Your task to perform on an android device: Open settings on Google Maps Image 0: 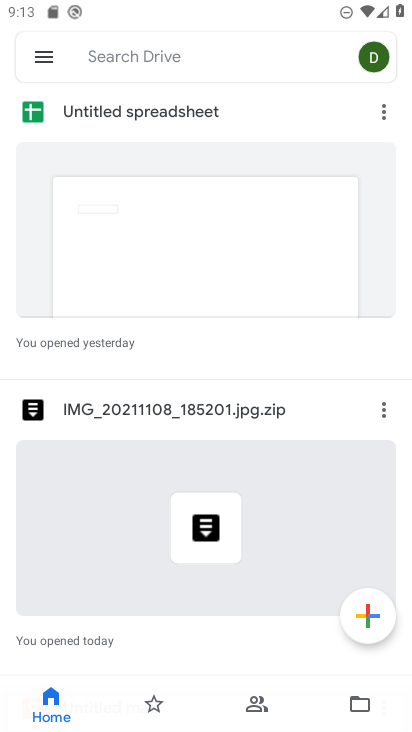
Step 0: press home button
Your task to perform on an android device: Open settings on Google Maps Image 1: 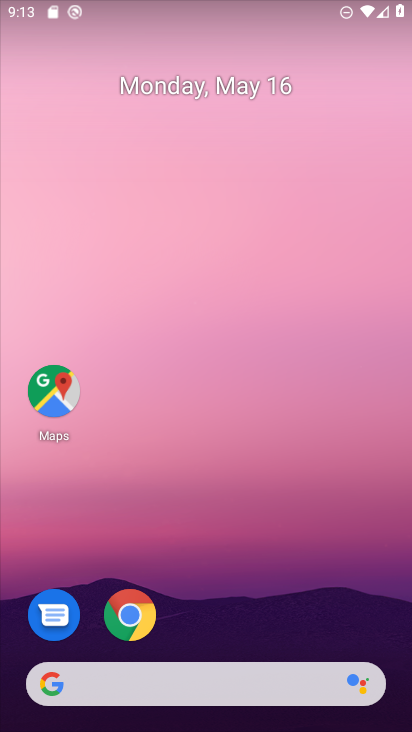
Step 1: click (63, 400)
Your task to perform on an android device: Open settings on Google Maps Image 2: 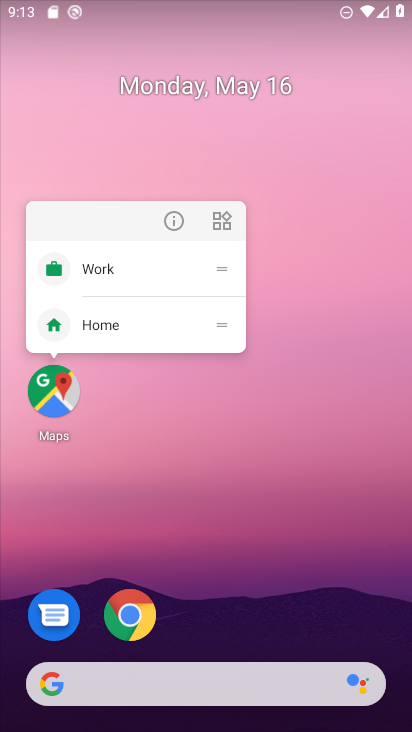
Step 2: click (47, 366)
Your task to perform on an android device: Open settings on Google Maps Image 3: 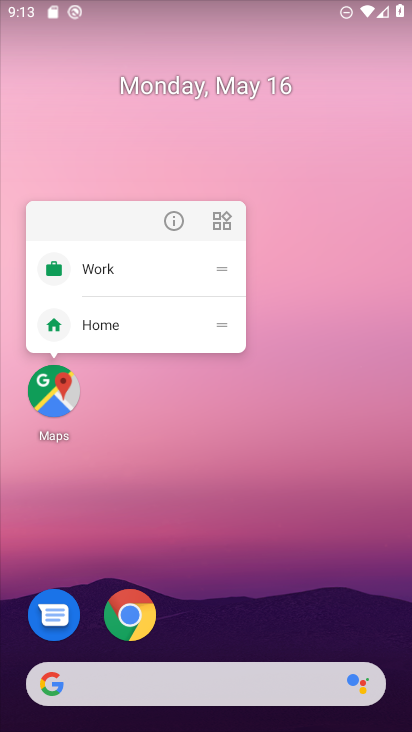
Step 3: click (46, 385)
Your task to perform on an android device: Open settings on Google Maps Image 4: 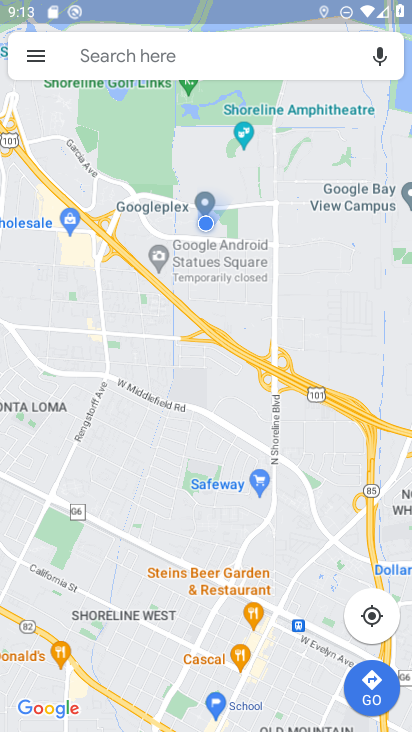
Step 4: click (43, 54)
Your task to perform on an android device: Open settings on Google Maps Image 5: 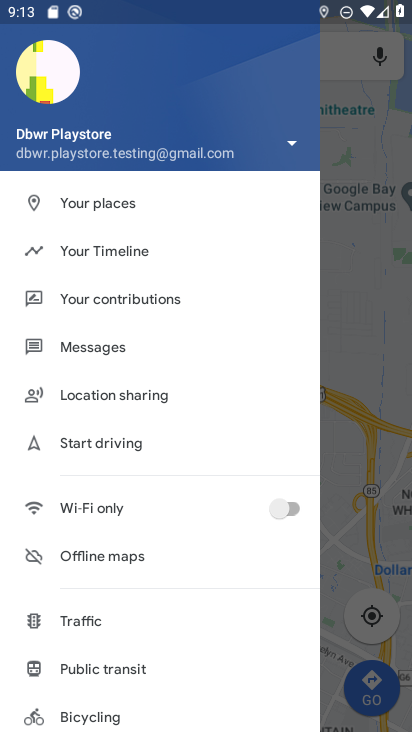
Step 5: drag from (98, 674) to (180, 172)
Your task to perform on an android device: Open settings on Google Maps Image 6: 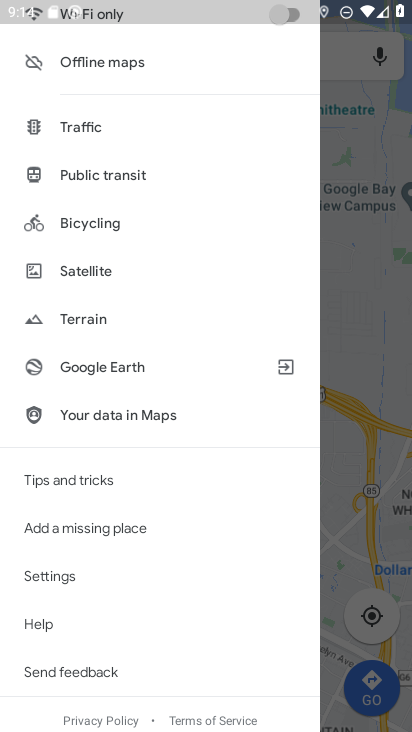
Step 6: click (42, 569)
Your task to perform on an android device: Open settings on Google Maps Image 7: 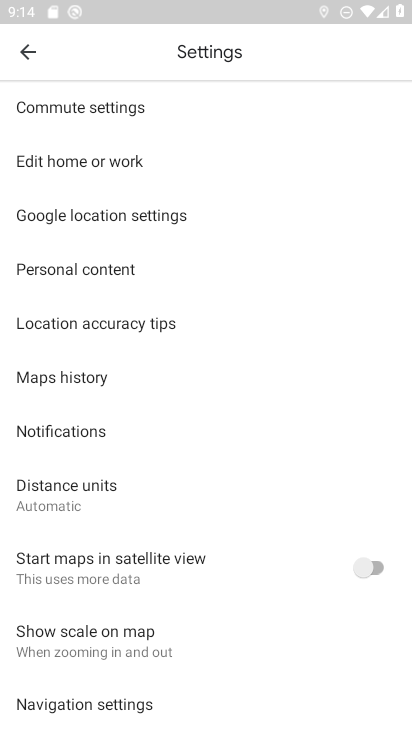
Step 7: task complete